Your task to perform on an android device: turn on the 12-hour format for clock Image 0: 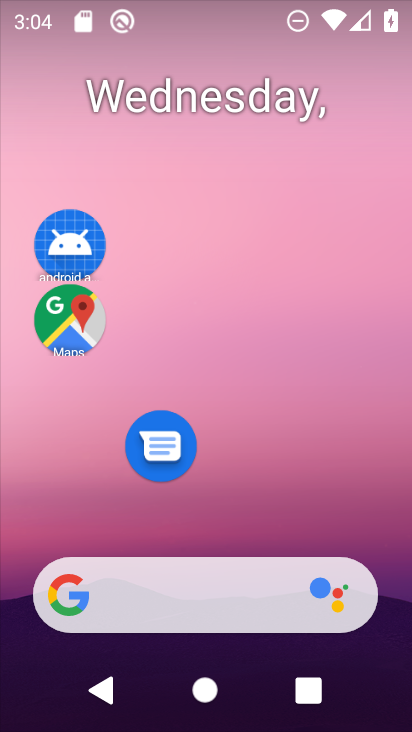
Step 0: drag from (237, 518) to (242, 157)
Your task to perform on an android device: turn on the 12-hour format for clock Image 1: 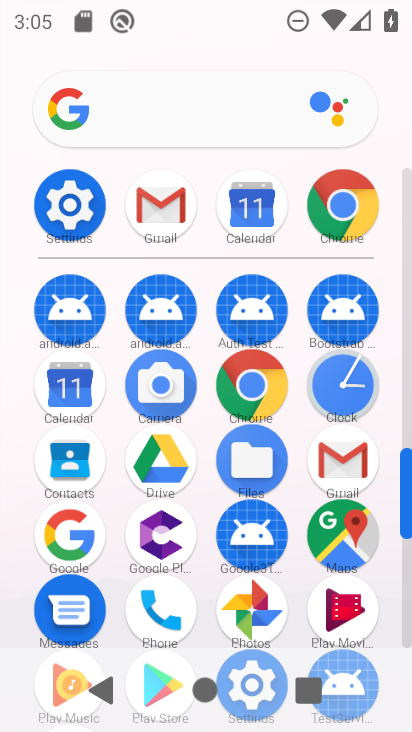
Step 1: click (341, 390)
Your task to perform on an android device: turn on the 12-hour format for clock Image 2: 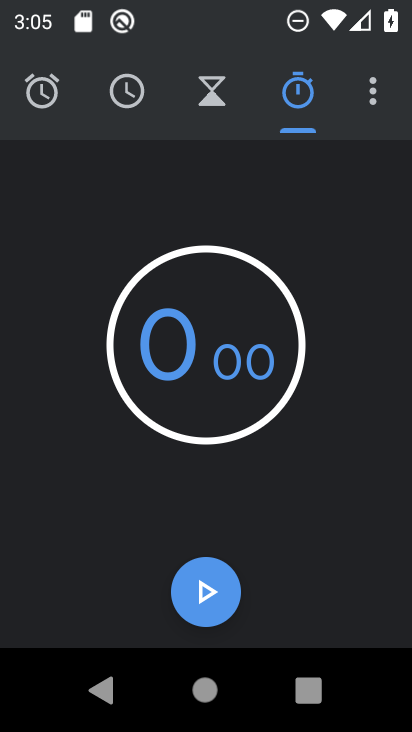
Step 2: click (373, 101)
Your task to perform on an android device: turn on the 12-hour format for clock Image 3: 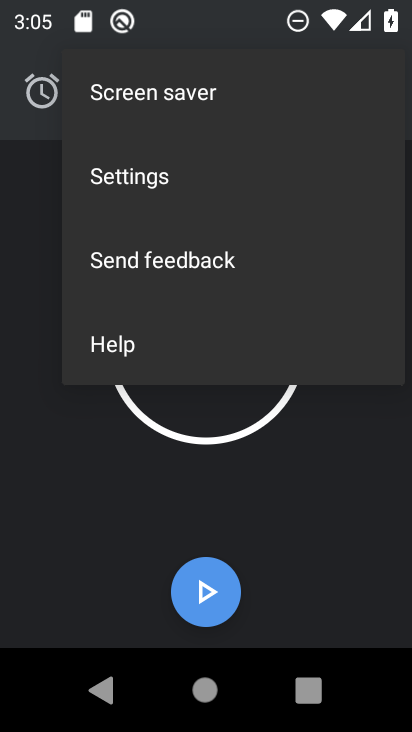
Step 3: click (240, 194)
Your task to perform on an android device: turn on the 12-hour format for clock Image 4: 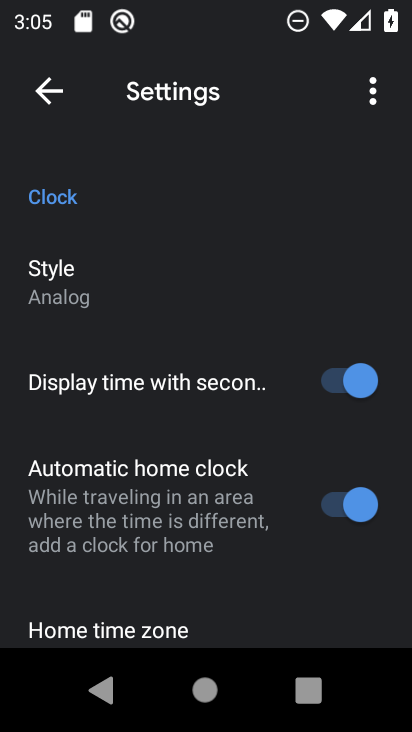
Step 4: drag from (183, 533) to (214, 320)
Your task to perform on an android device: turn on the 12-hour format for clock Image 5: 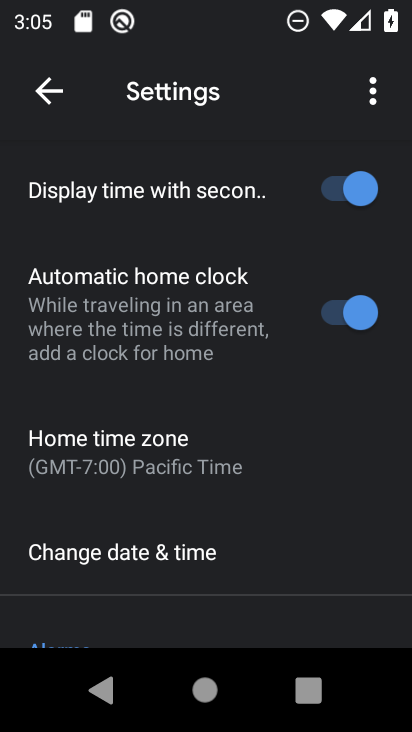
Step 5: click (189, 528)
Your task to perform on an android device: turn on the 12-hour format for clock Image 6: 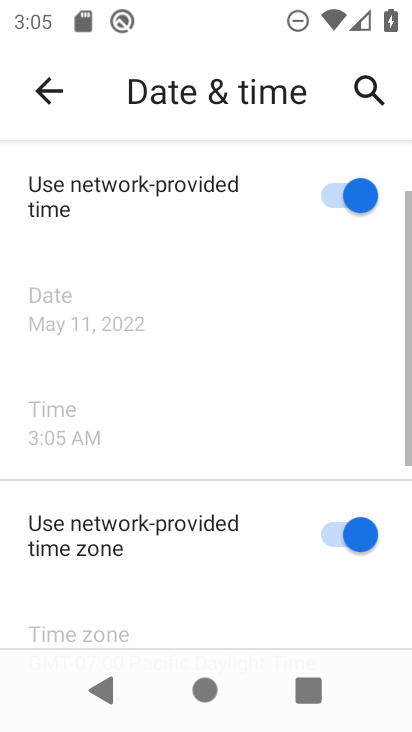
Step 6: task complete